Your task to perform on an android device: Go to Reddit.com Image 0: 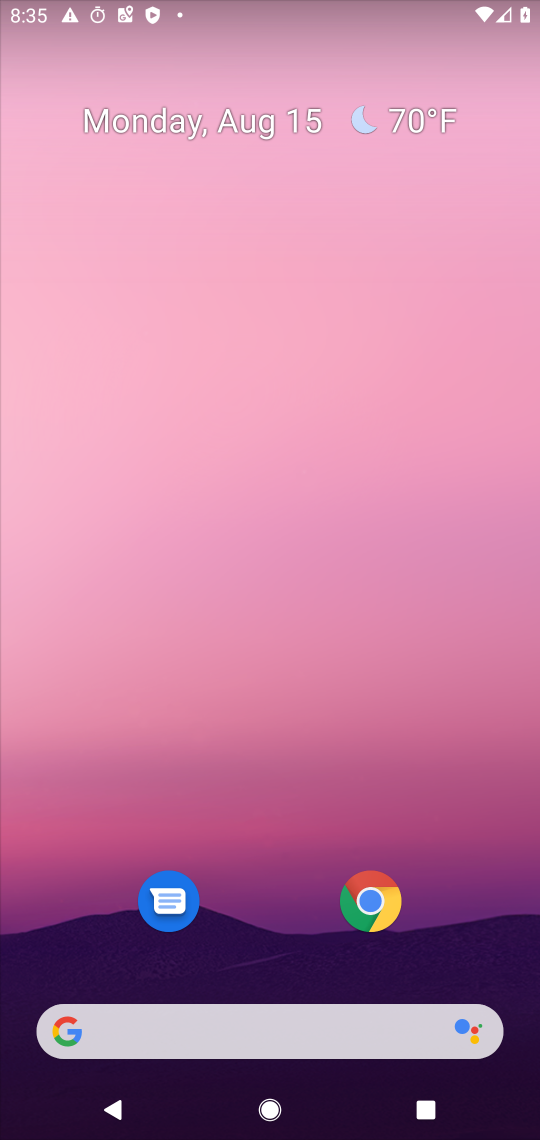
Step 0: click (396, 902)
Your task to perform on an android device: Go to Reddit.com Image 1: 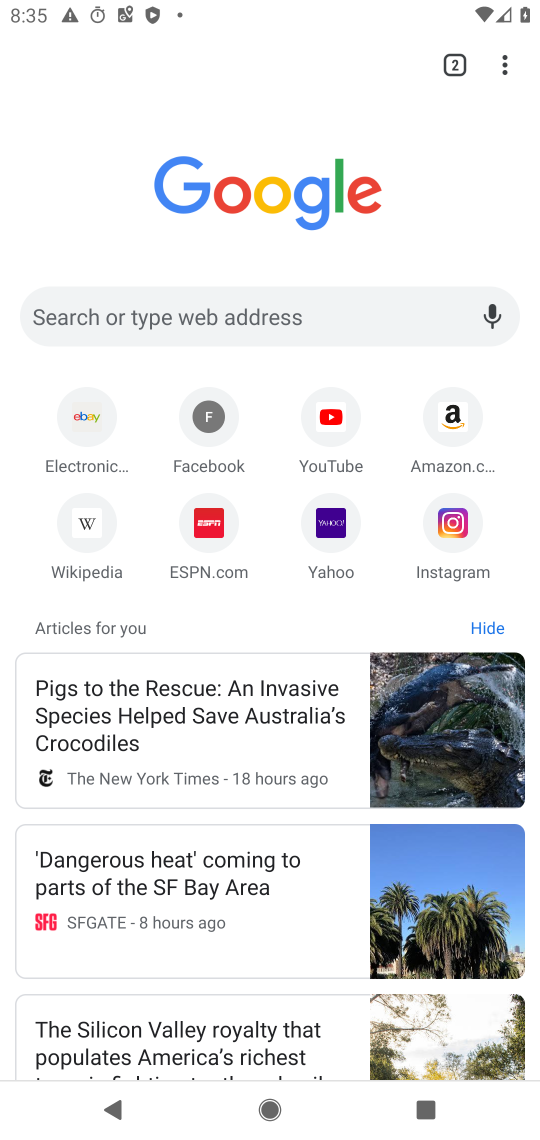
Step 1: click (275, 306)
Your task to perform on an android device: Go to Reddit.com Image 2: 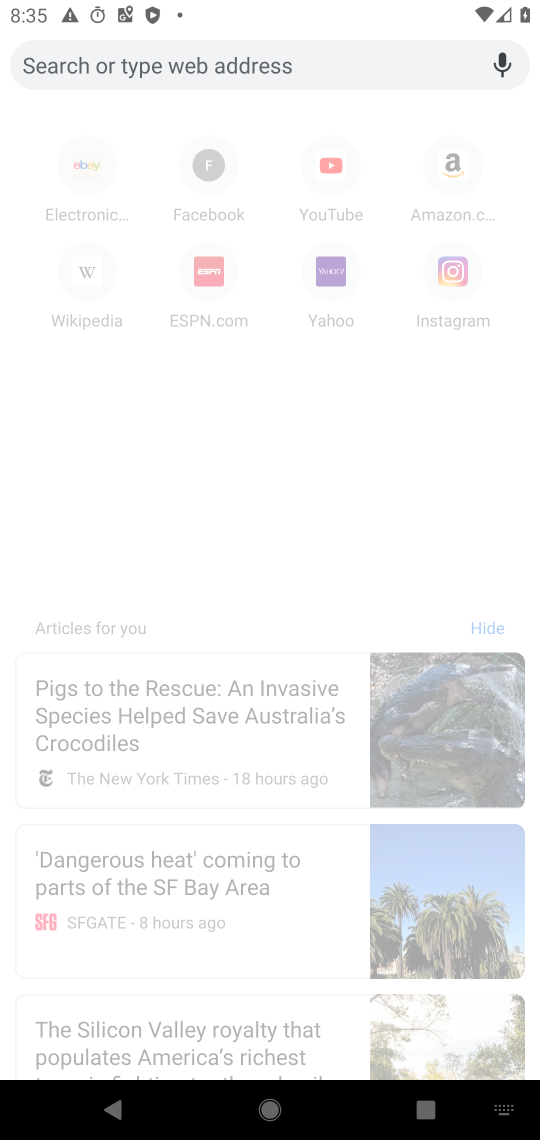
Step 2: type "Reddit.com"
Your task to perform on an android device: Go to Reddit.com Image 3: 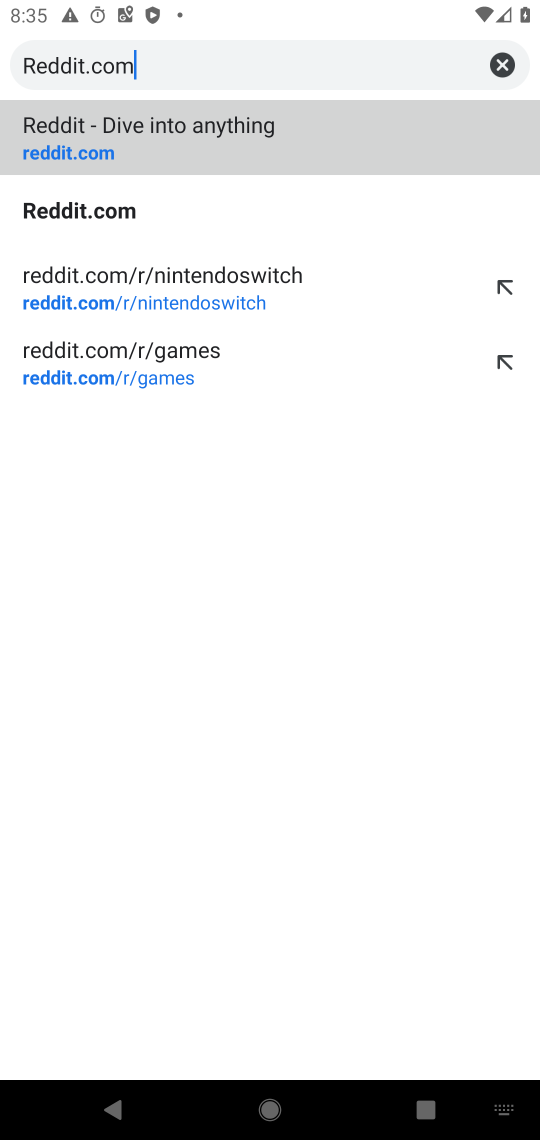
Step 3: click (182, 122)
Your task to perform on an android device: Go to Reddit.com Image 4: 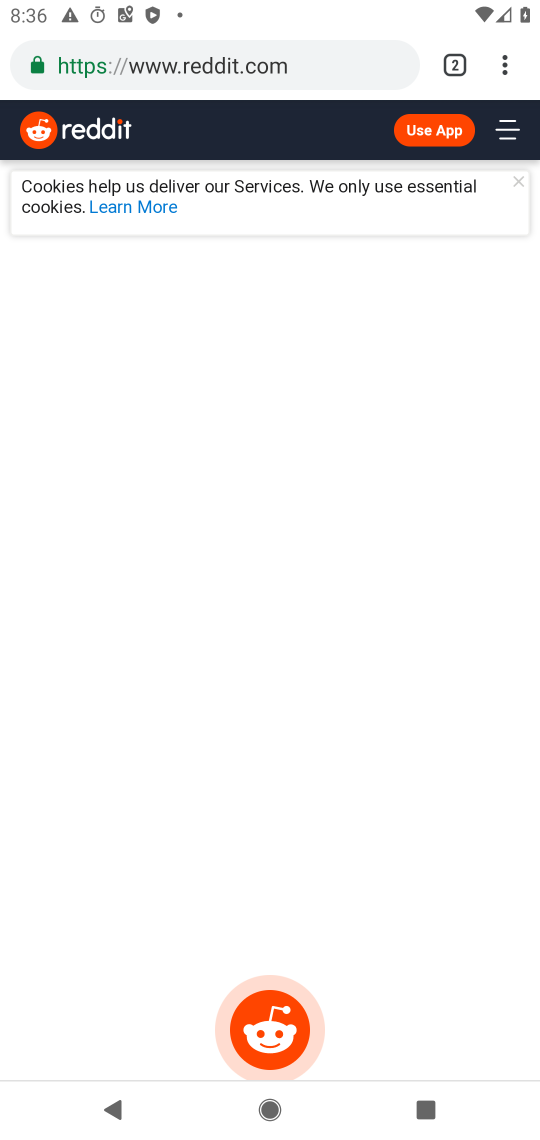
Step 4: task complete